Your task to perform on an android device: Open Yahoo.com Image 0: 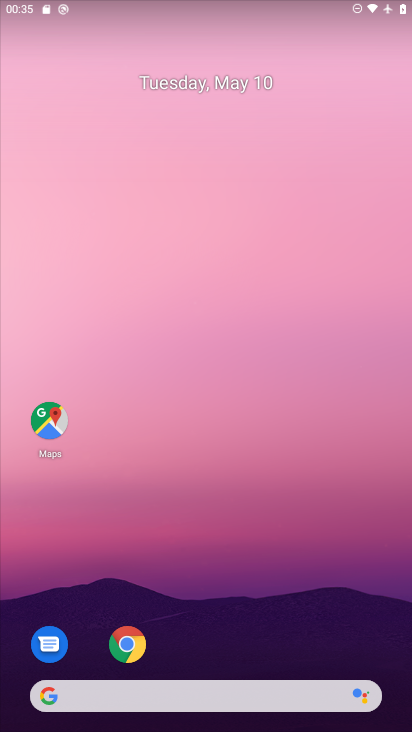
Step 0: click (132, 636)
Your task to perform on an android device: Open Yahoo.com Image 1: 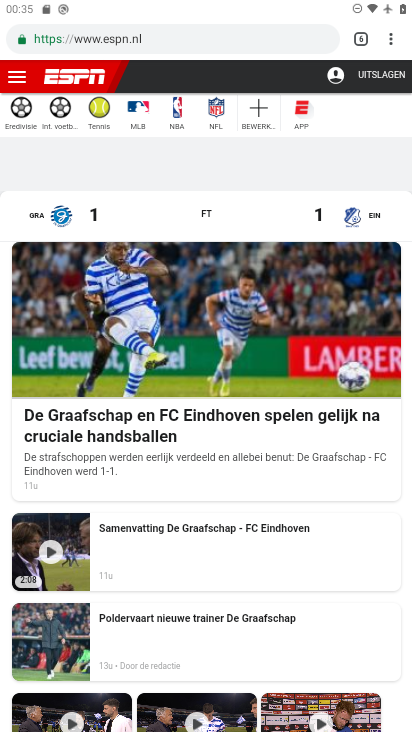
Step 1: click (359, 35)
Your task to perform on an android device: Open Yahoo.com Image 2: 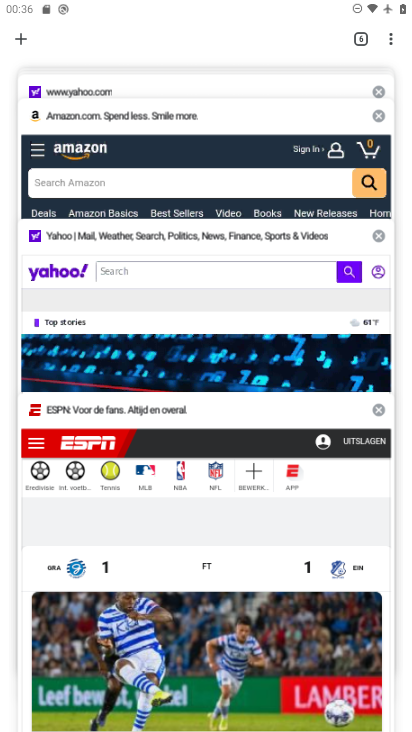
Step 2: click (98, 269)
Your task to perform on an android device: Open Yahoo.com Image 3: 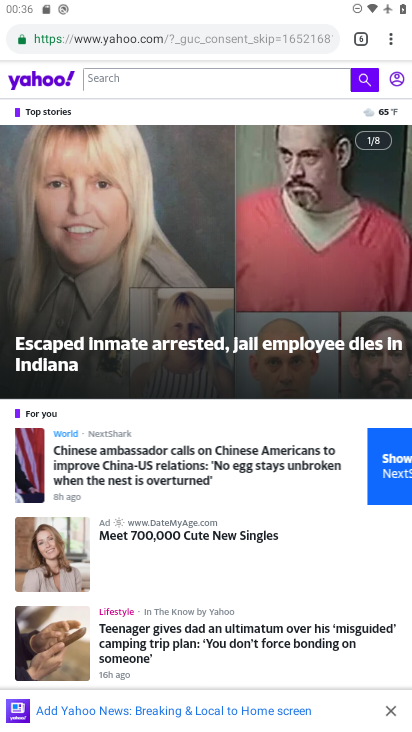
Step 3: task complete